Your task to perform on an android device: Open the calendar and show me this week's events? Image 0: 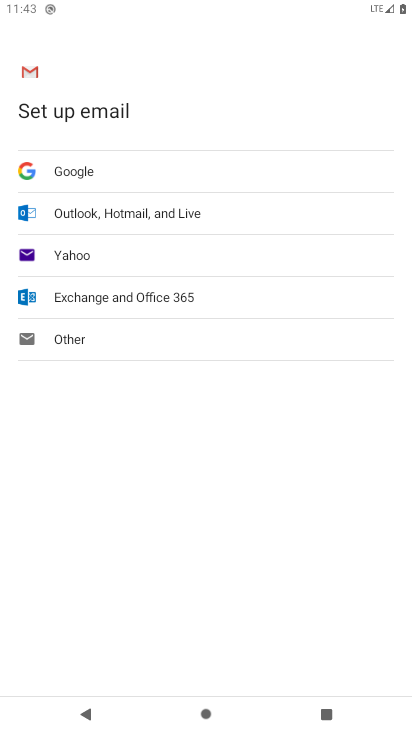
Step 0: press home button
Your task to perform on an android device: Open the calendar and show me this week's events? Image 1: 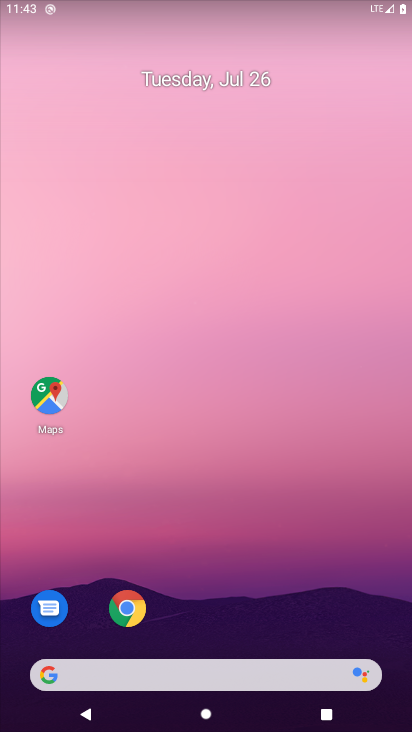
Step 1: drag from (277, 567) to (255, 95)
Your task to perform on an android device: Open the calendar and show me this week's events? Image 2: 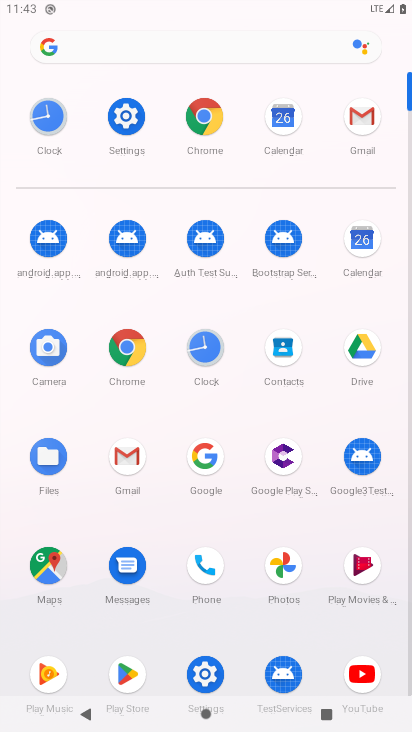
Step 2: click (362, 246)
Your task to perform on an android device: Open the calendar and show me this week's events? Image 3: 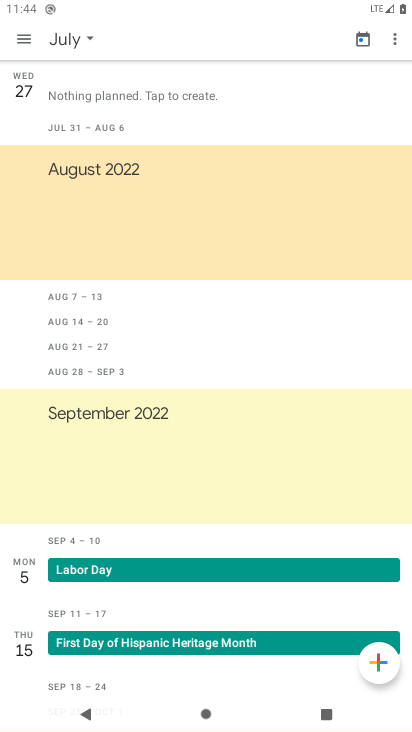
Step 3: click (20, 38)
Your task to perform on an android device: Open the calendar and show me this week's events? Image 4: 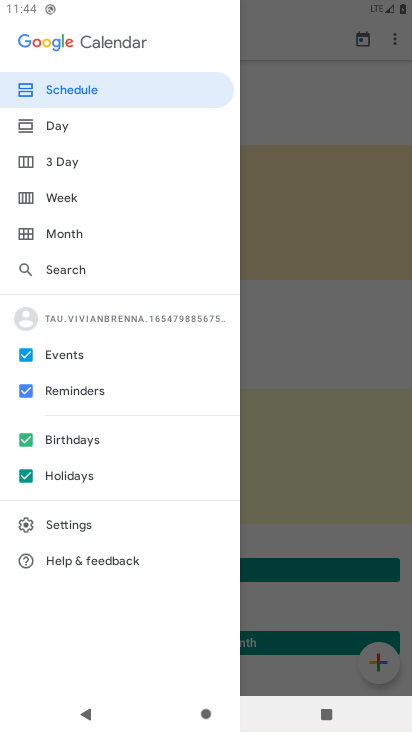
Step 4: click (65, 197)
Your task to perform on an android device: Open the calendar and show me this week's events? Image 5: 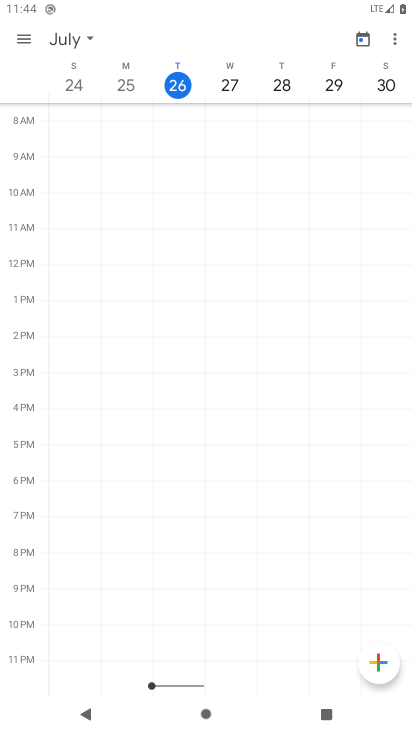
Step 5: task complete